Your task to perform on an android device: clear all cookies in the chrome app Image 0: 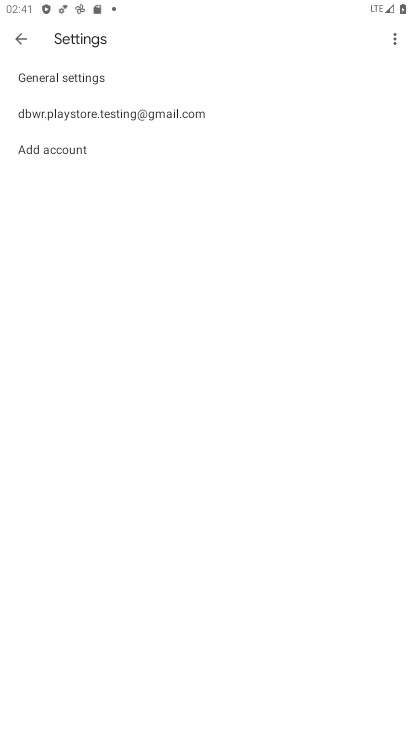
Step 0: press home button
Your task to perform on an android device: clear all cookies in the chrome app Image 1: 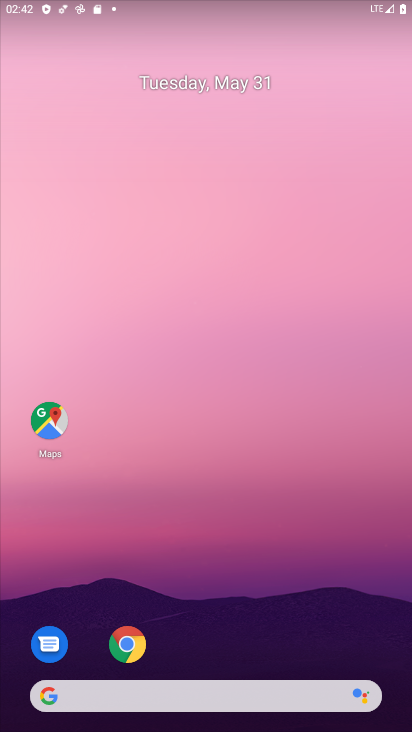
Step 1: click (129, 640)
Your task to perform on an android device: clear all cookies in the chrome app Image 2: 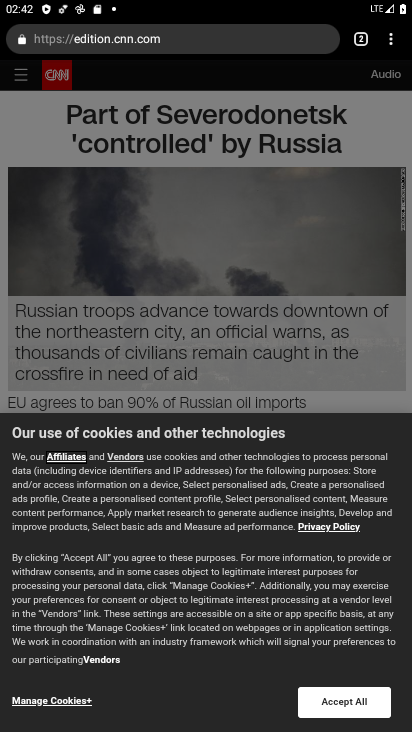
Step 2: drag from (396, 46) to (250, 227)
Your task to perform on an android device: clear all cookies in the chrome app Image 3: 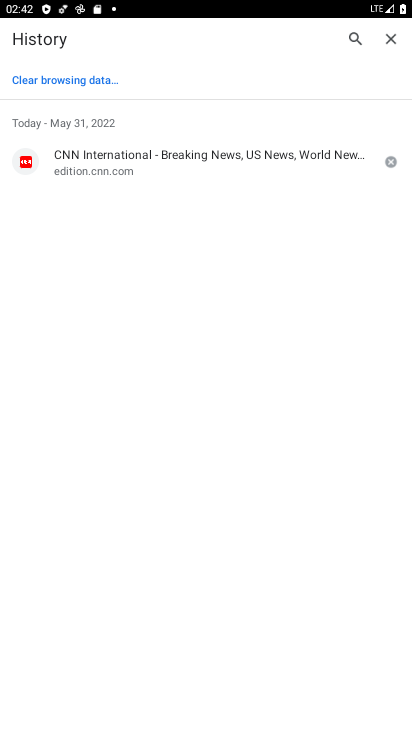
Step 3: click (99, 84)
Your task to perform on an android device: clear all cookies in the chrome app Image 4: 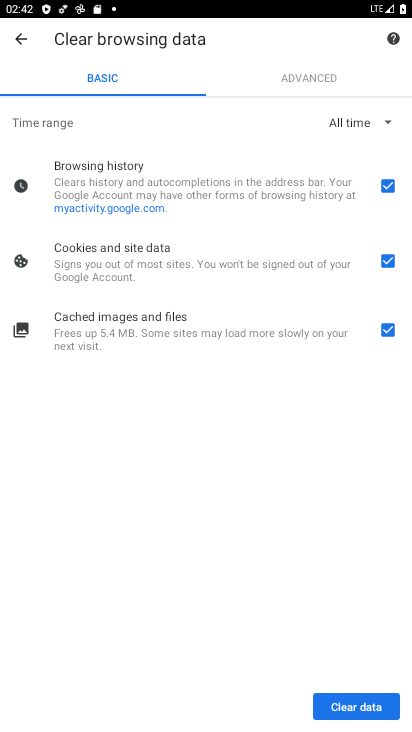
Step 4: click (376, 702)
Your task to perform on an android device: clear all cookies in the chrome app Image 5: 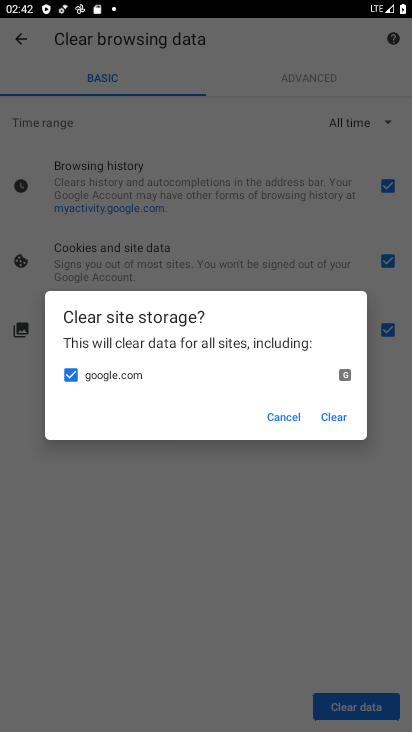
Step 5: click (332, 411)
Your task to perform on an android device: clear all cookies in the chrome app Image 6: 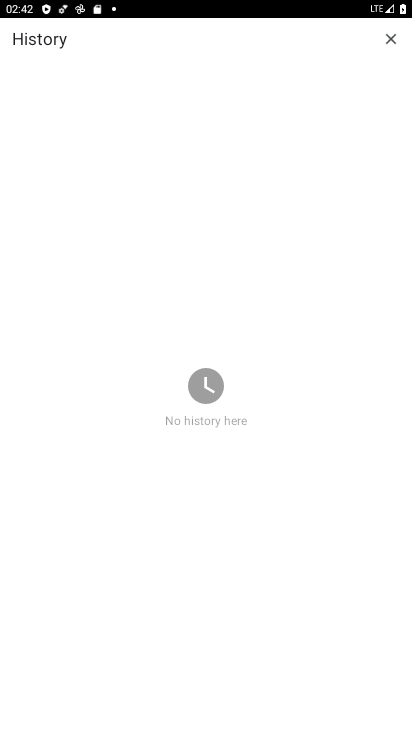
Step 6: task complete